Your task to perform on an android device: Search for Italian restaurants on Maps Image 0: 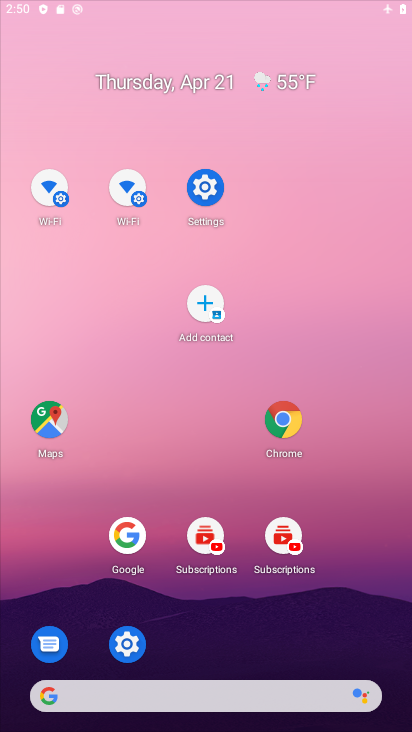
Step 0: click (0, 7)
Your task to perform on an android device: Search for Italian restaurants on Maps Image 1: 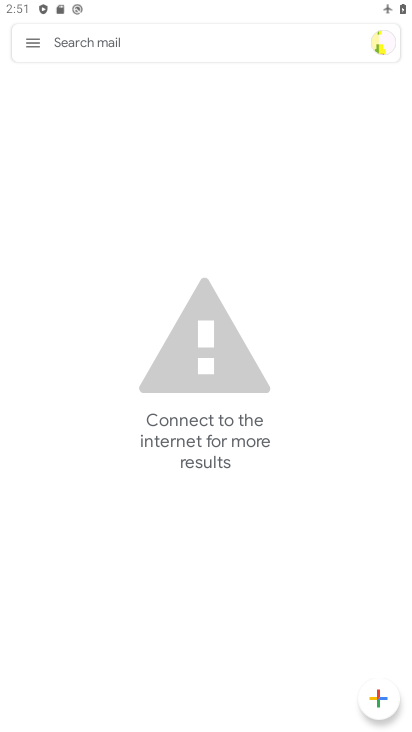
Step 1: press home button
Your task to perform on an android device: Search for Italian restaurants on Maps Image 2: 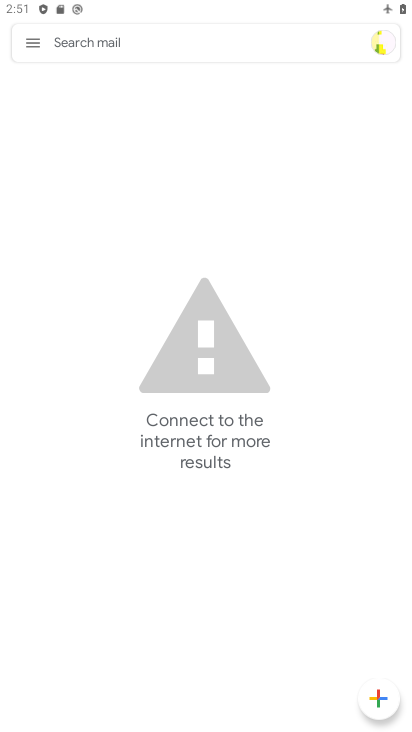
Step 2: press home button
Your task to perform on an android device: Search for Italian restaurants on Maps Image 3: 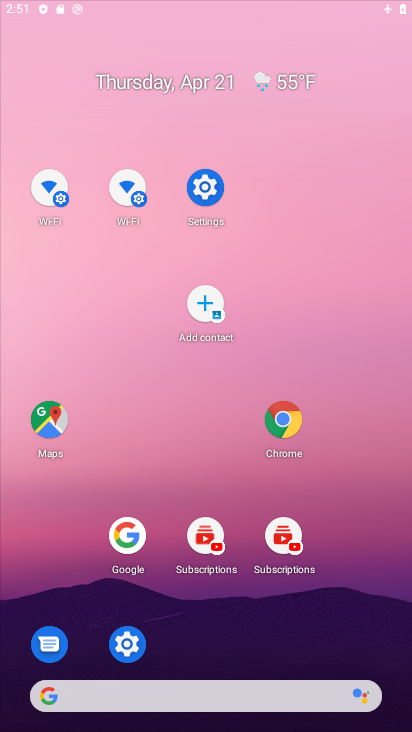
Step 3: press home button
Your task to perform on an android device: Search for Italian restaurants on Maps Image 4: 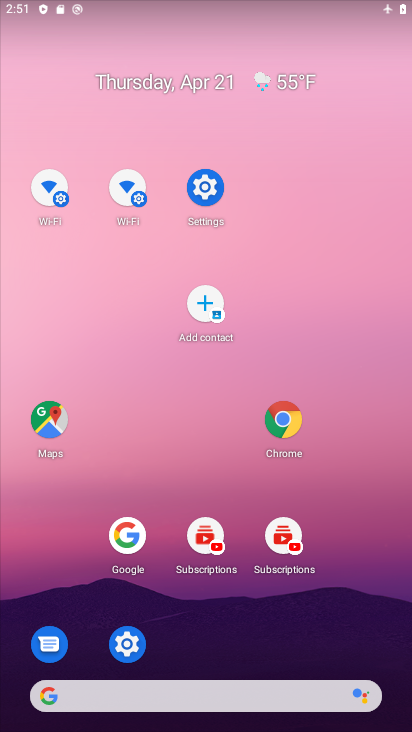
Step 4: drag from (313, 322) to (285, 27)
Your task to perform on an android device: Search for Italian restaurants on Maps Image 5: 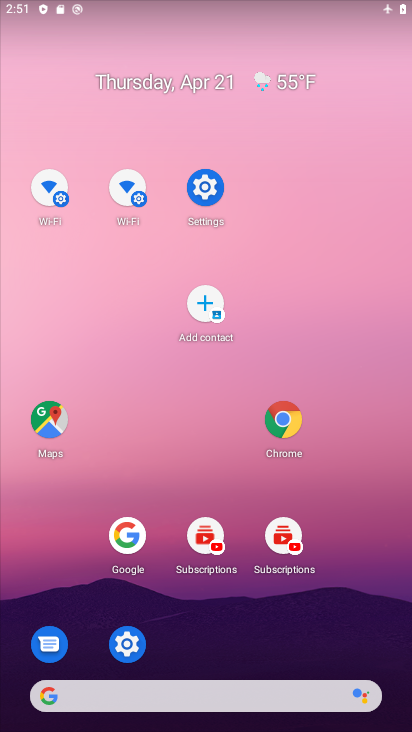
Step 5: click (249, 143)
Your task to perform on an android device: Search for Italian restaurants on Maps Image 6: 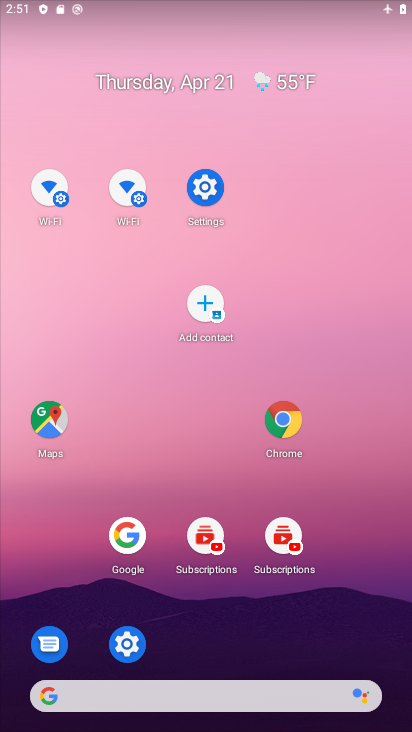
Step 6: click (38, 407)
Your task to perform on an android device: Search for Italian restaurants on Maps Image 7: 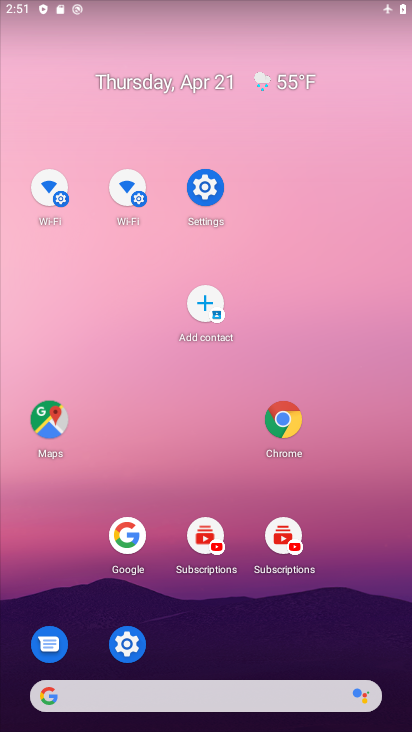
Step 7: click (62, 440)
Your task to perform on an android device: Search for Italian restaurants on Maps Image 8: 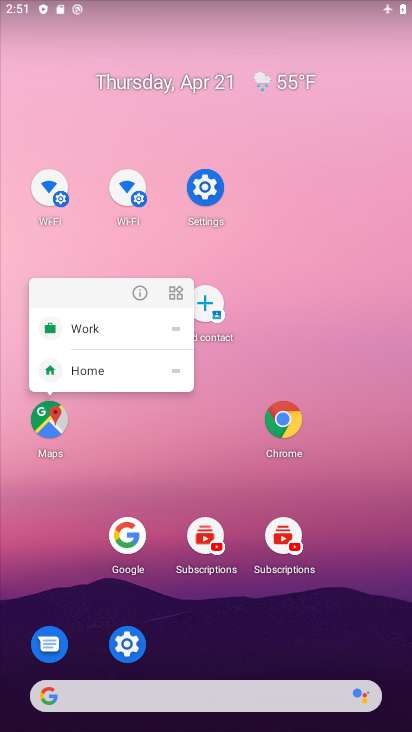
Step 8: drag from (42, 419) to (75, 403)
Your task to perform on an android device: Search for Italian restaurants on Maps Image 9: 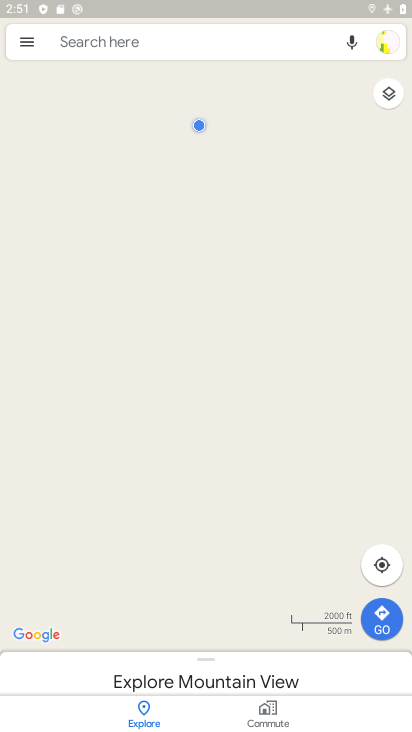
Step 9: click (78, 45)
Your task to perform on an android device: Search for Italian restaurants on Maps Image 10: 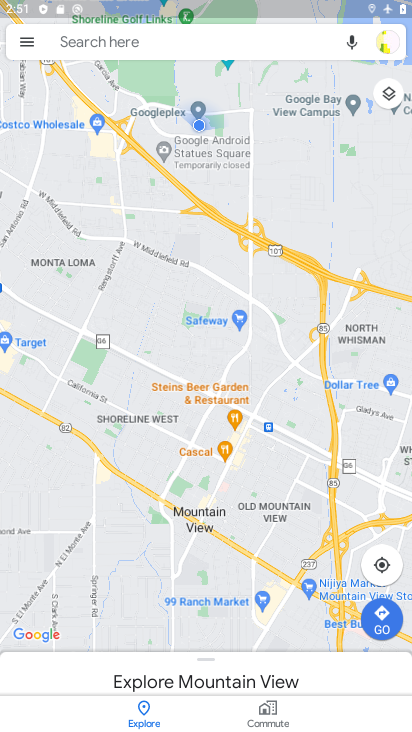
Step 10: click (78, 45)
Your task to perform on an android device: Search for Italian restaurants on Maps Image 11: 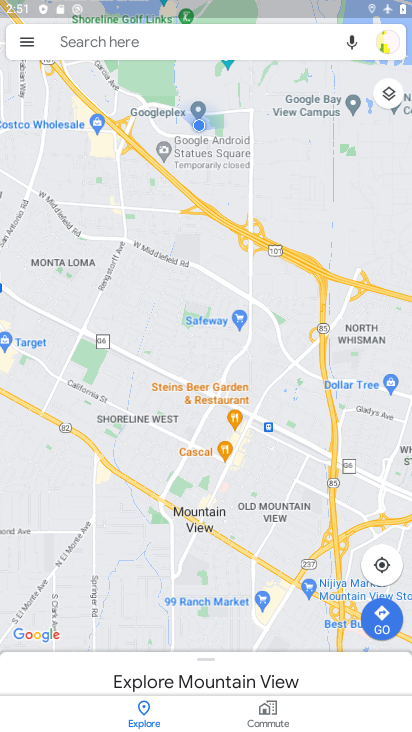
Step 11: click (77, 36)
Your task to perform on an android device: Search for Italian restaurants on Maps Image 12: 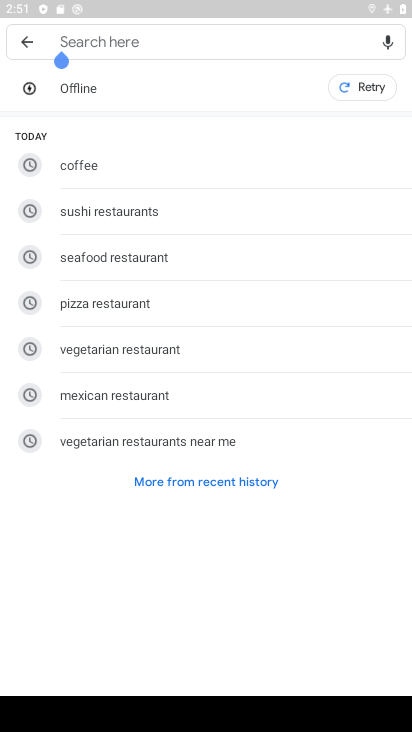
Step 12: click (81, 40)
Your task to perform on an android device: Search for Italian restaurants on Maps Image 13: 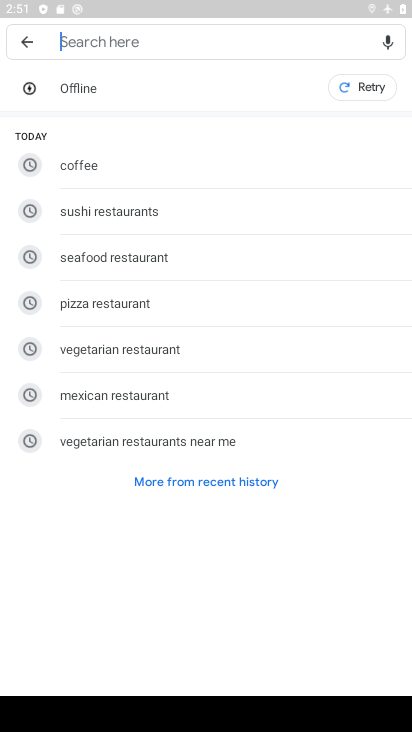
Step 13: type "italian restaurants"
Your task to perform on an android device: Search for Italian restaurants on Maps Image 14: 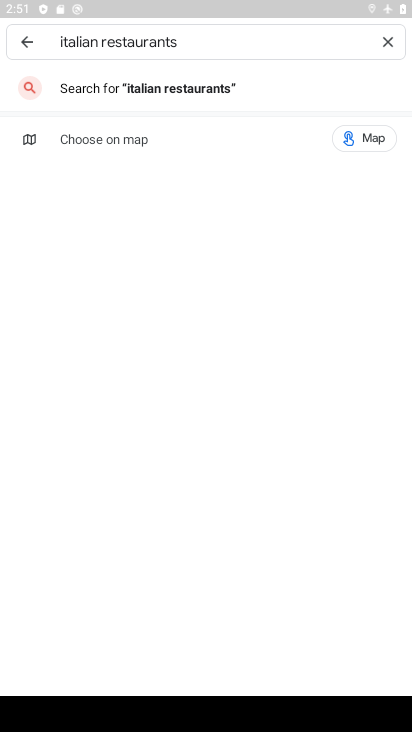
Step 14: click (221, 88)
Your task to perform on an android device: Search for Italian restaurants on Maps Image 15: 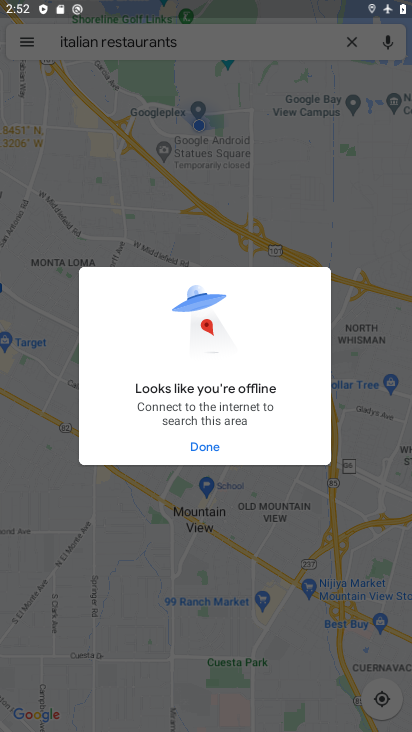
Step 15: task complete